Your task to perform on an android device: Toggle the flashlight Image 0: 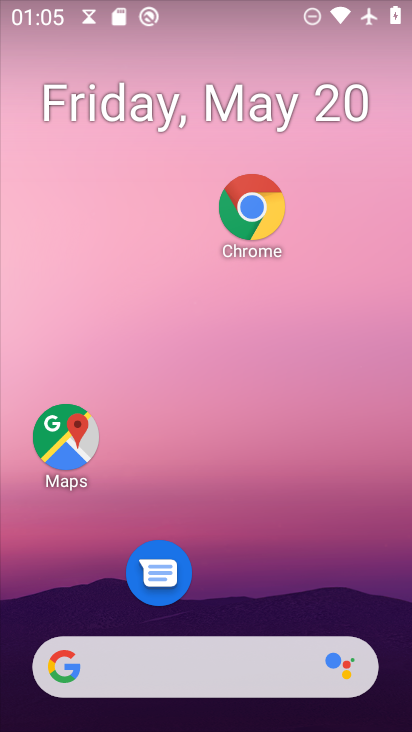
Step 0: drag from (246, 581) to (293, 28)
Your task to perform on an android device: Toggle the flashlight Image 1: 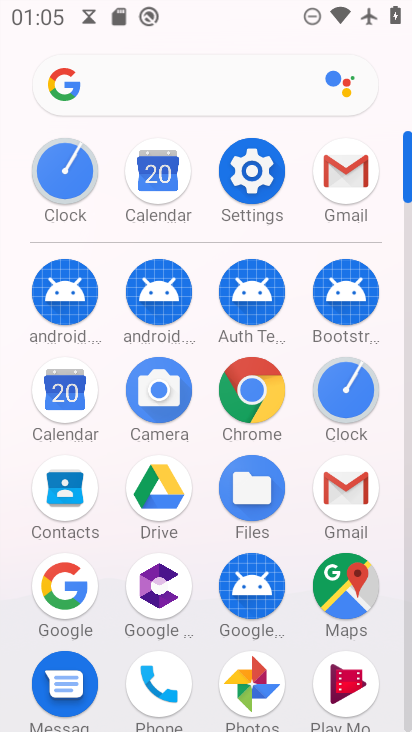
Step 1: click (247, 171)
Your task to perform on an android device: Toggle the flashlight Image 2: 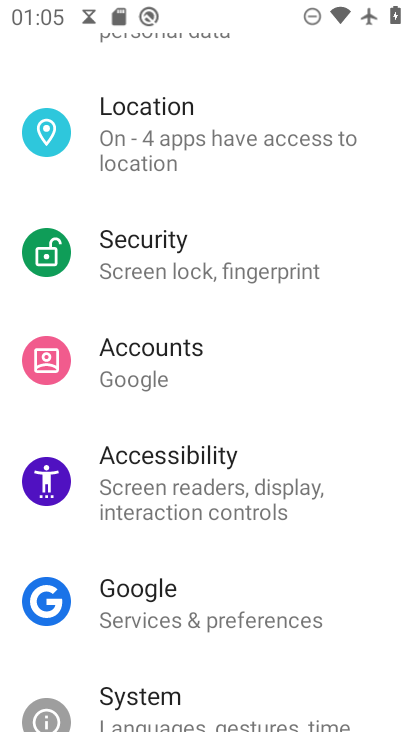
Step 2: task complete